Your task to perform on an android device: What's the weather going to be this weekend? Image 0: 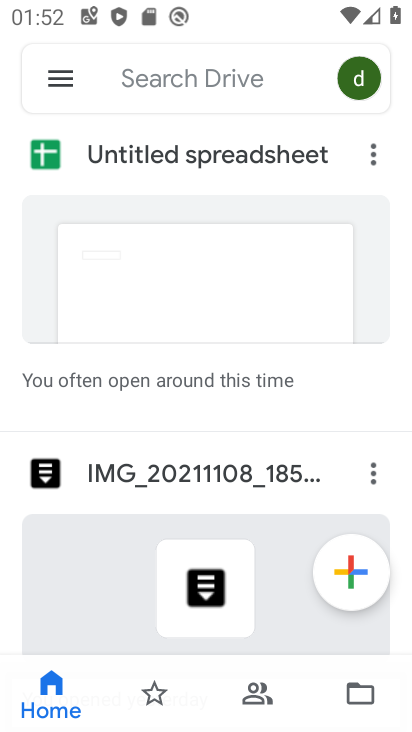
Step 0: press back button
Your task to perform on an android device: What's the weather going to be this weekend? Image 1: 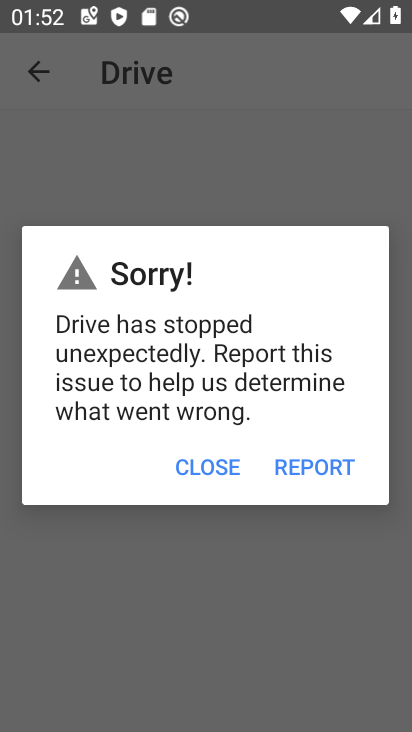
Step 1: press back button
Your task to perform on an android device: What's the weather going to be this weekend? Image 2: 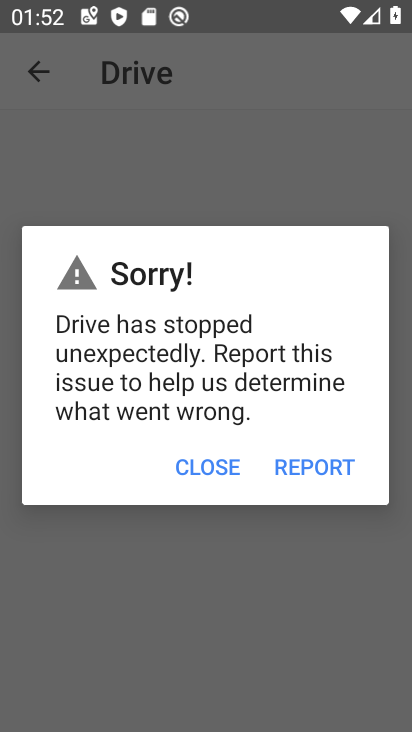
Step 2: press home button
Your task to perform on an android device: What's the weather going to be this weekend? Image 3: 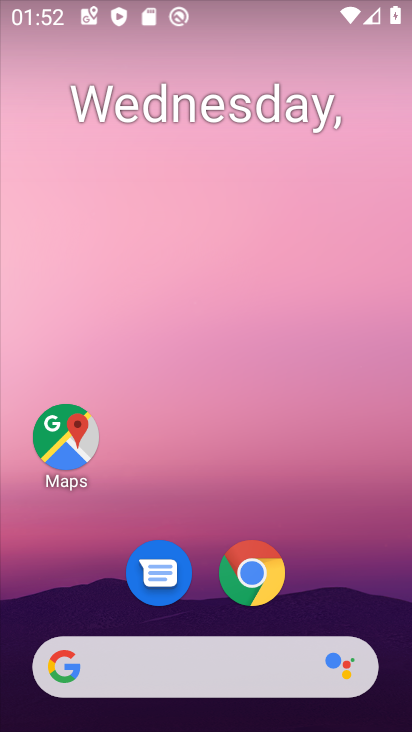
Step 3: drag from (328, 585) to (233, 97)
Your task to perform on an android device: What's the weather going to be this weekend? Image 4: 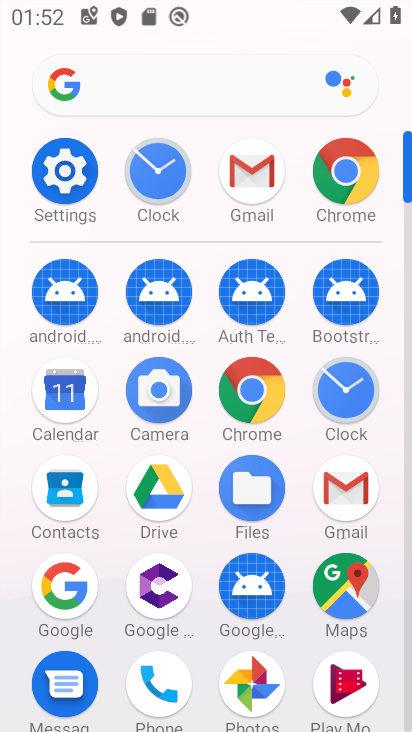
Step 4: click (57, 582)
Your task to perform on an android device: What's the weather going to be this weekend? Image 5: 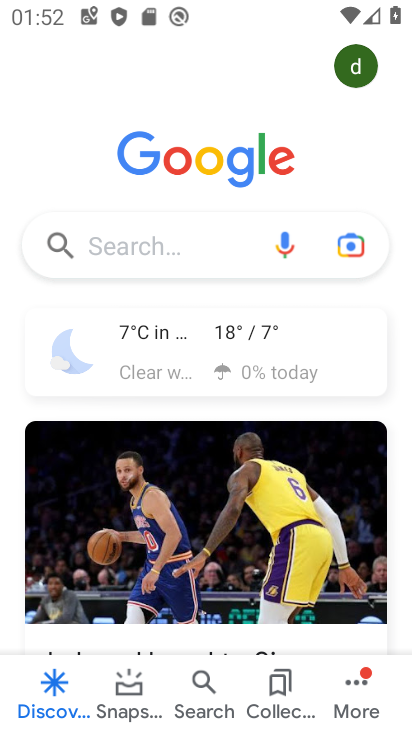
Step 5: click (209, 360)
Your task to perform on an android device: What's the weather going to be this weekend? Image 6: 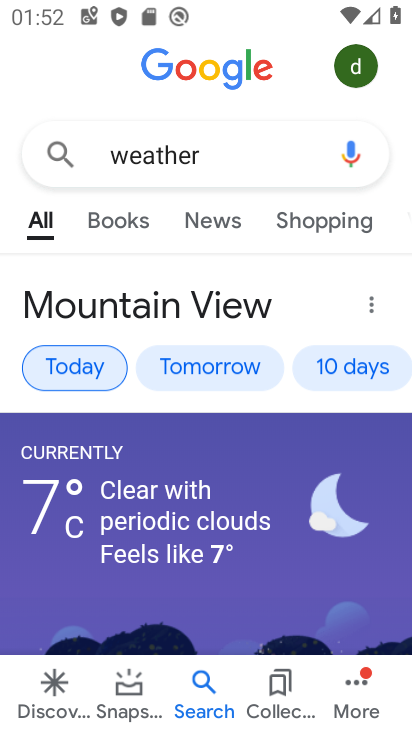
Step 6: click (345, 365)
Your task to perform on an android device: What's the weather going to be this weekend? Image 7: 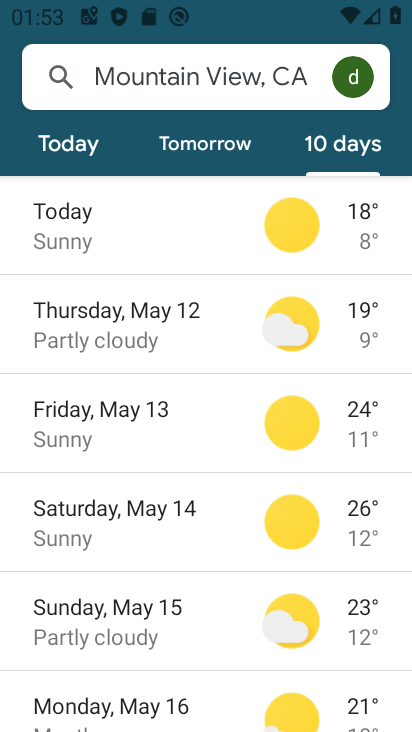
Step 7: task complete